Your task to perform on an android device: Add "jbl flip 4" to the cart on newegg, then select checkout. Image 0: 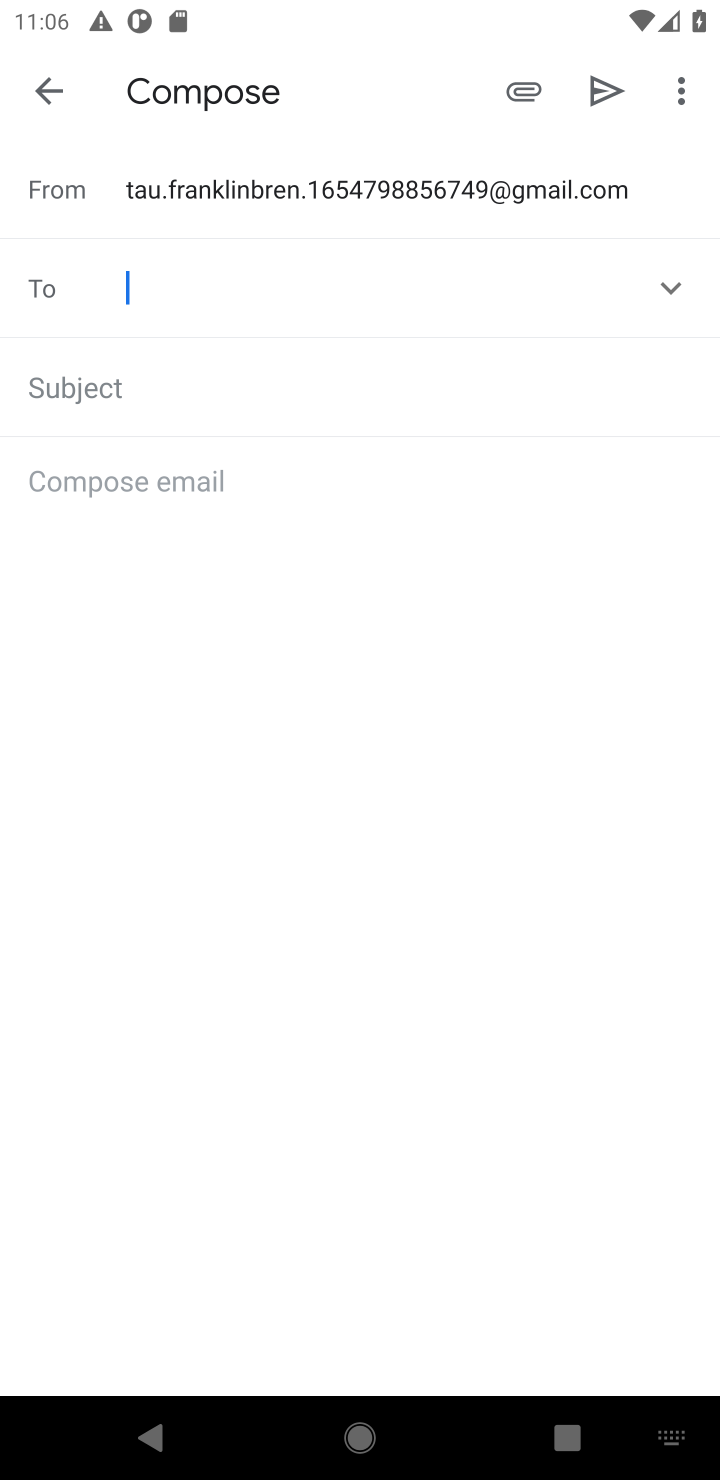
Step 0: press home button
Your task to perform on an android device: Add "jbl flip 4" to the cart on newegg, then select checkout. Image 1: 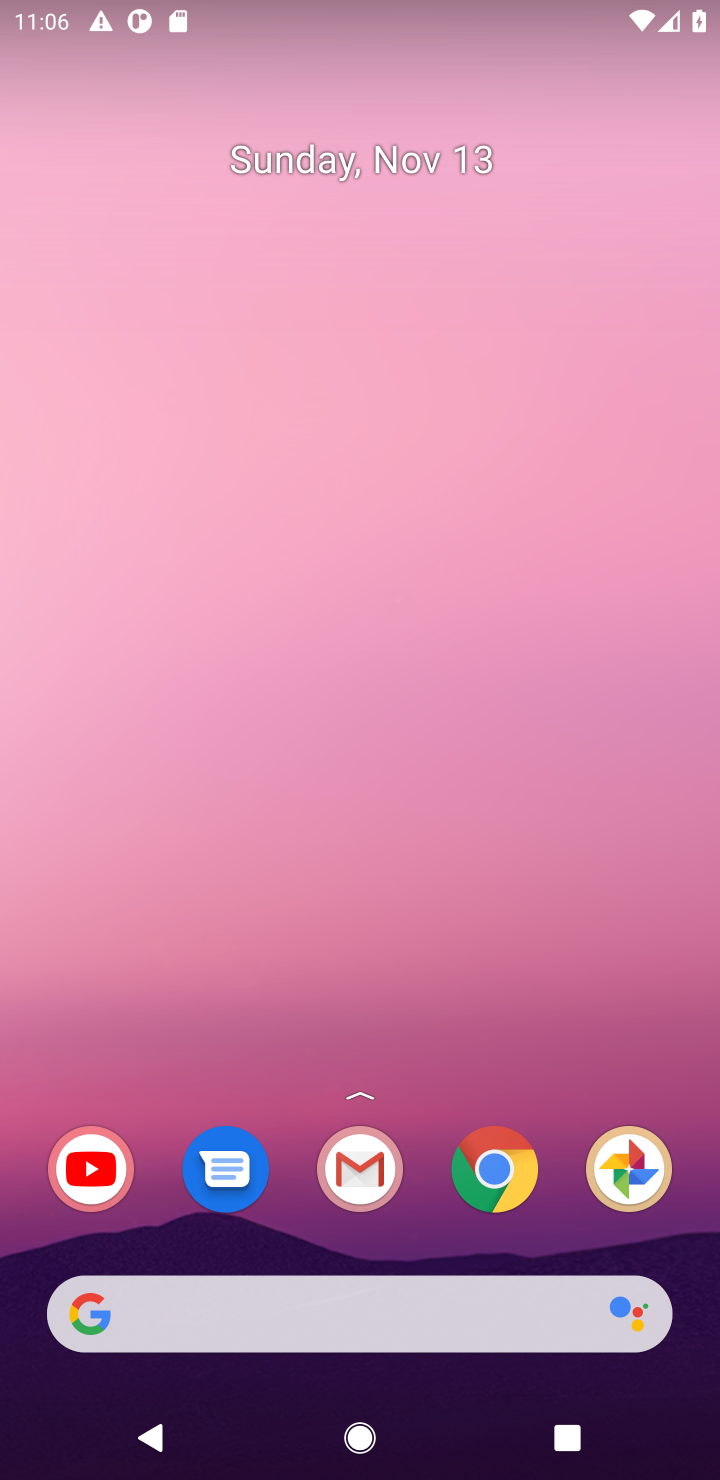
Step 1: drag from (411, 1258) to (280, 42)
Your task to perform on an android device: Add "jbl flip 4" to the cart on newegg, then select checkout. Image 2: 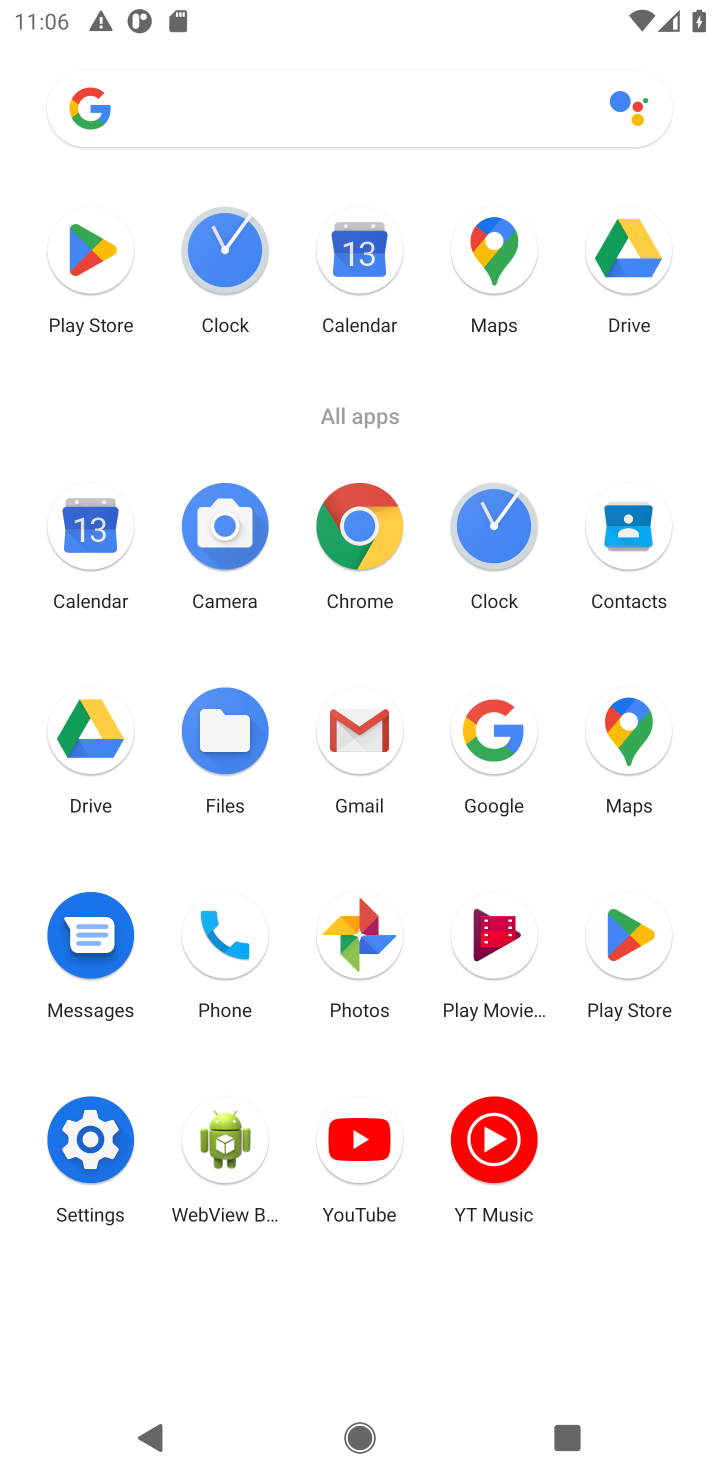
Step 2: click (361, 507)
Your task to perform on an android device: Add "jbl flip 4" to the cart on newegg, then select checkout. Image 3: 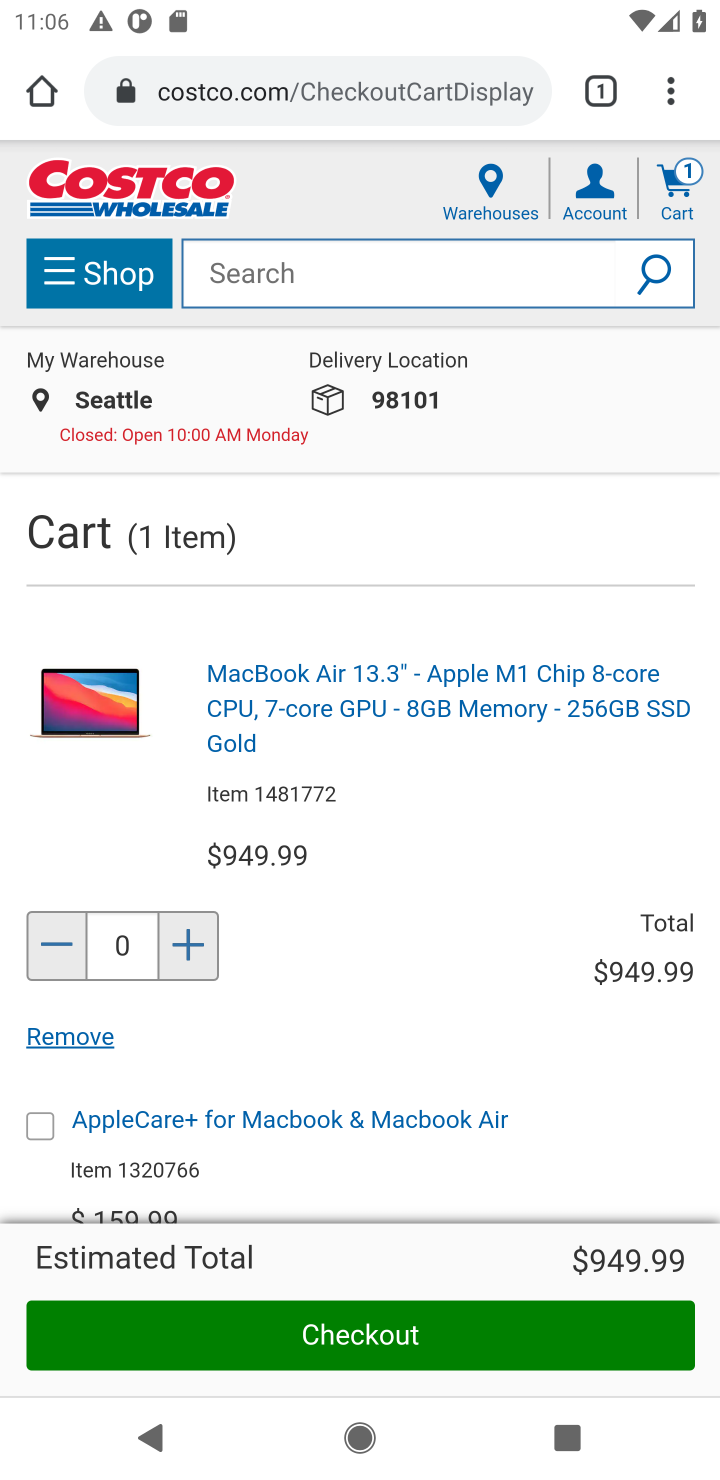
Step 3: click (356, 92)
Your task to perform on an android device: Add "jbl flip 4" to the cart on newegg, then select checkout. Image 4: 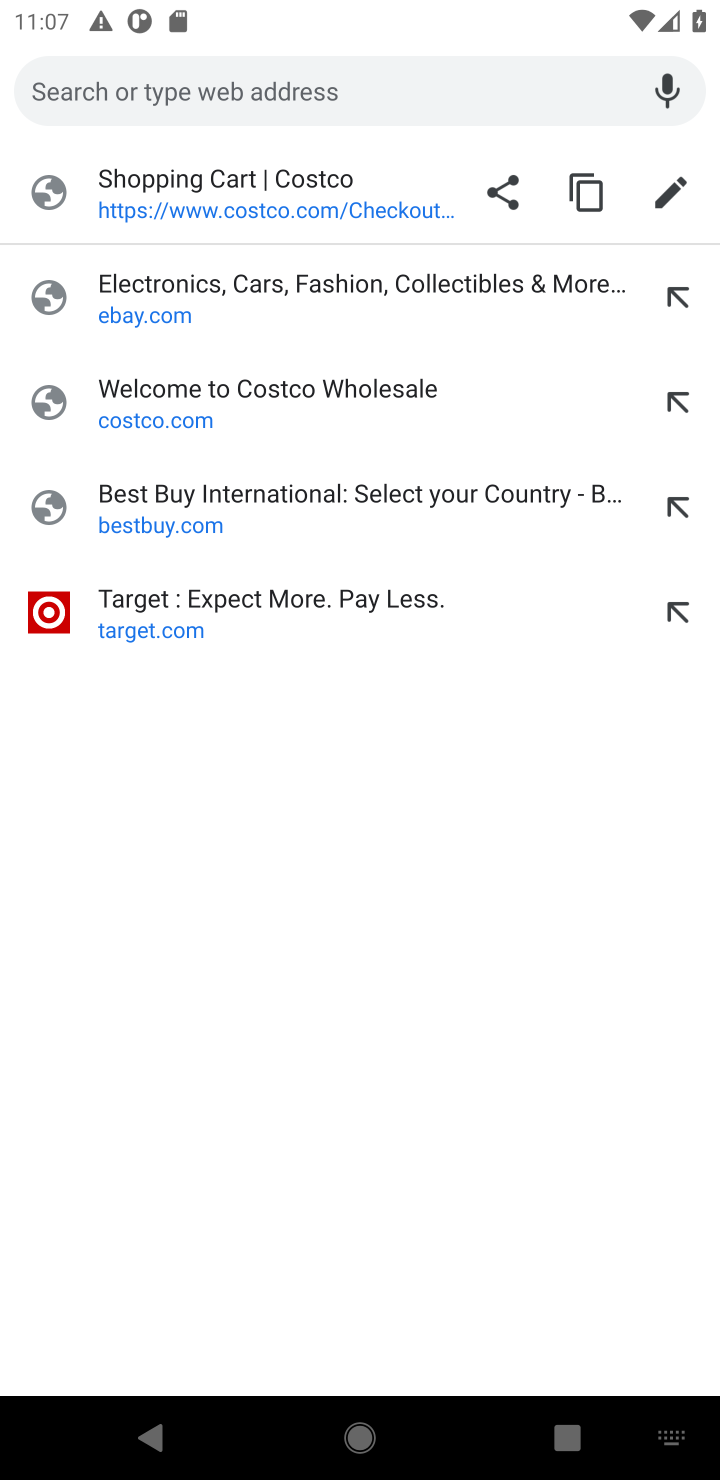
Step 4: type "newegg.com"
Your task to perform on an android device: Add "jbl flip 4" to the cart on newegg, then select checkout. Image 5: 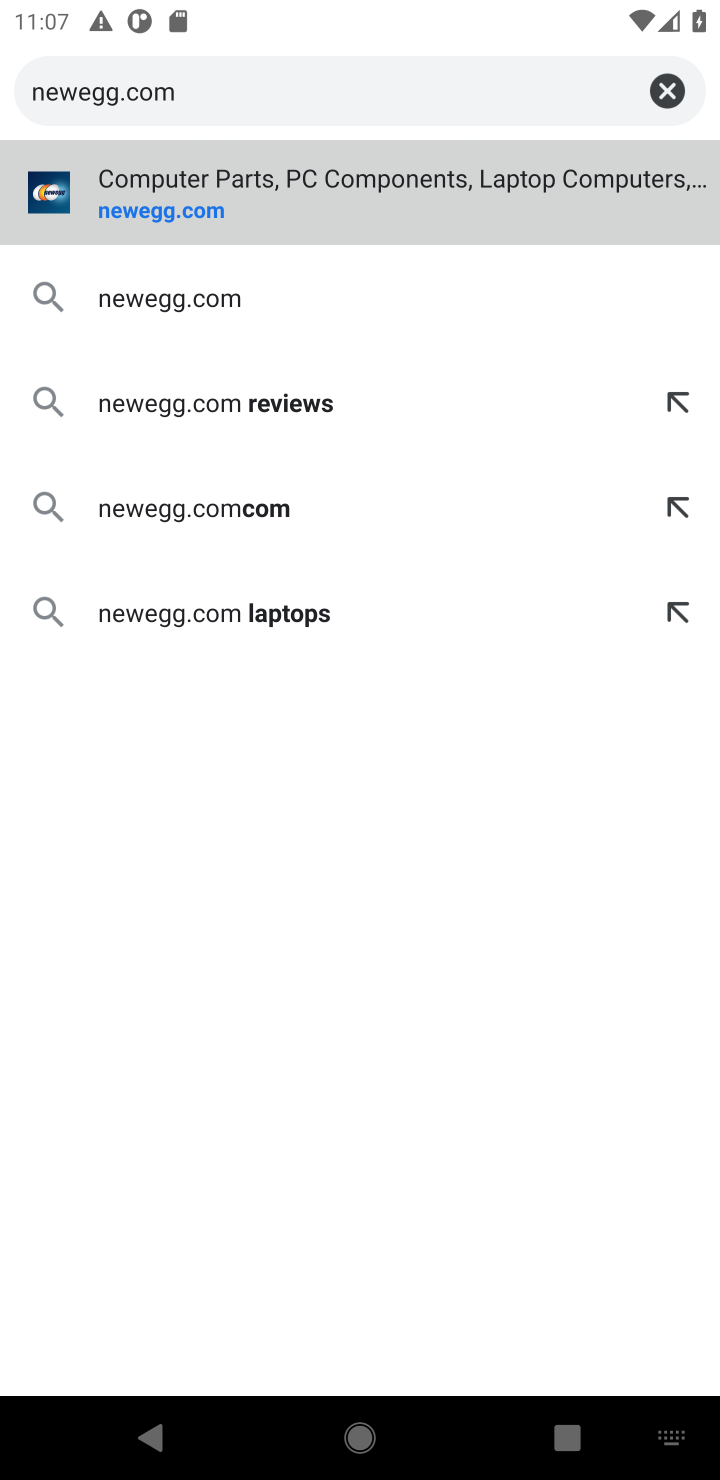
Step 5: press enter
Your task to perform on an android device: Add "jbl flip 4" to the cart on newegg, then select checkout. Image 6: 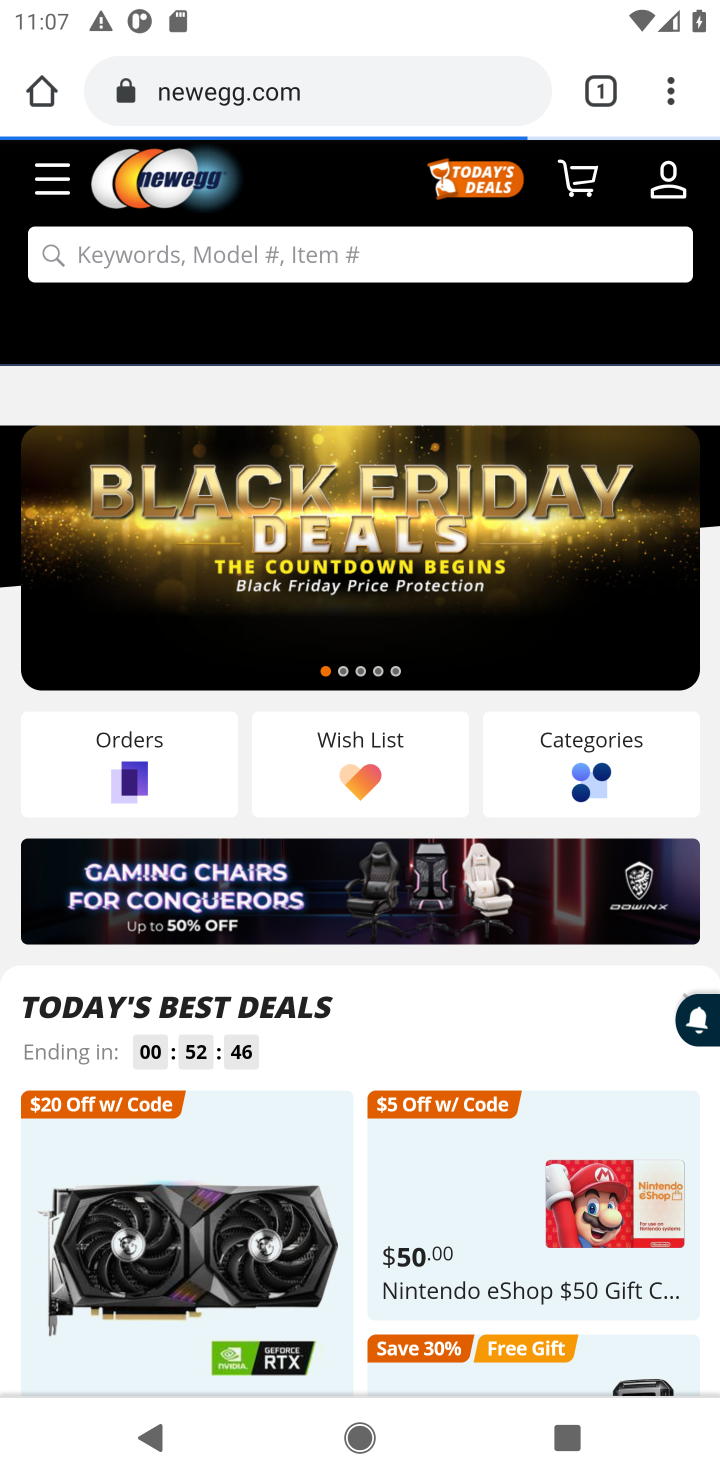
Step 6: click (419, 251)
Your task to perform on an android device: Add "jbl flip 4" to the cart on newegg, then select checkout. Image 7: 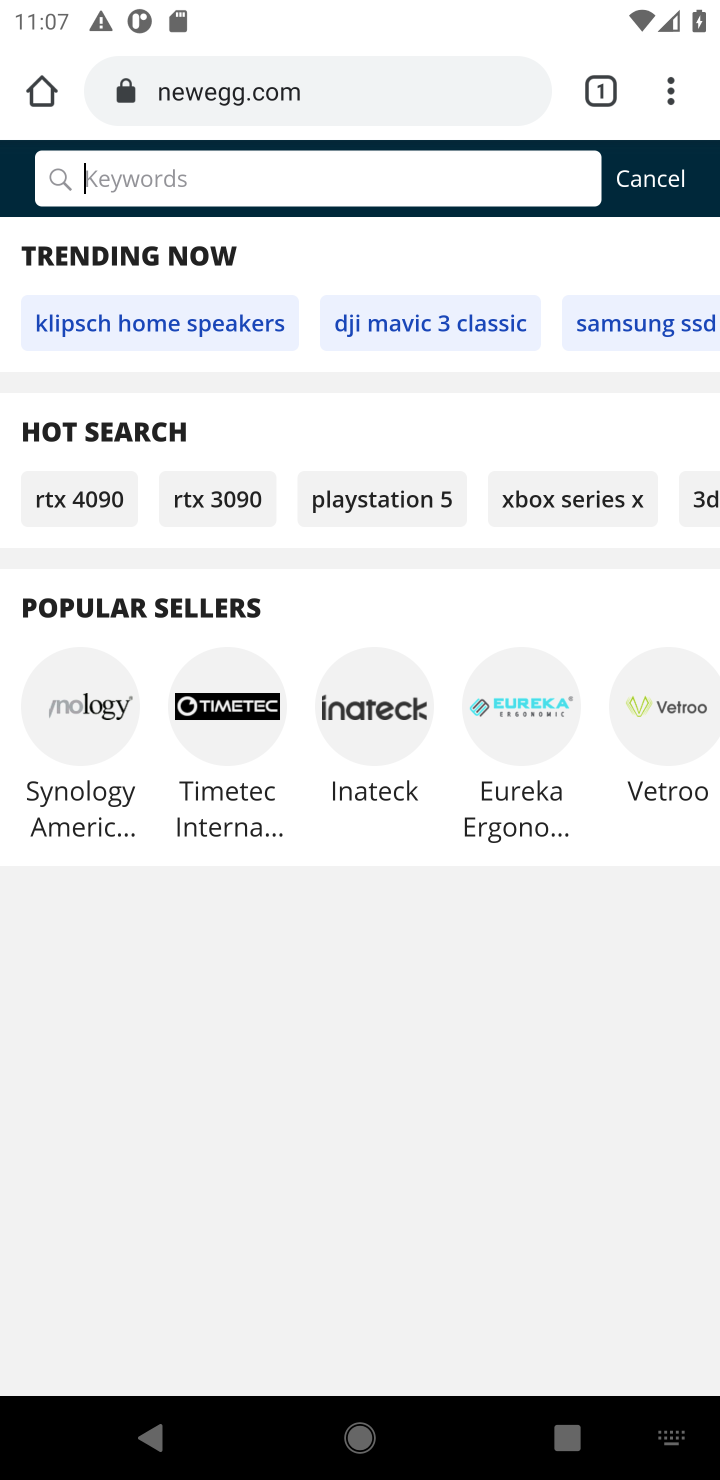
Step 7: type "jbl flip 4"
Your task to perform on an android device: Add "jbl flip 4" to the cart on newegg, then select checkout. Image 8: 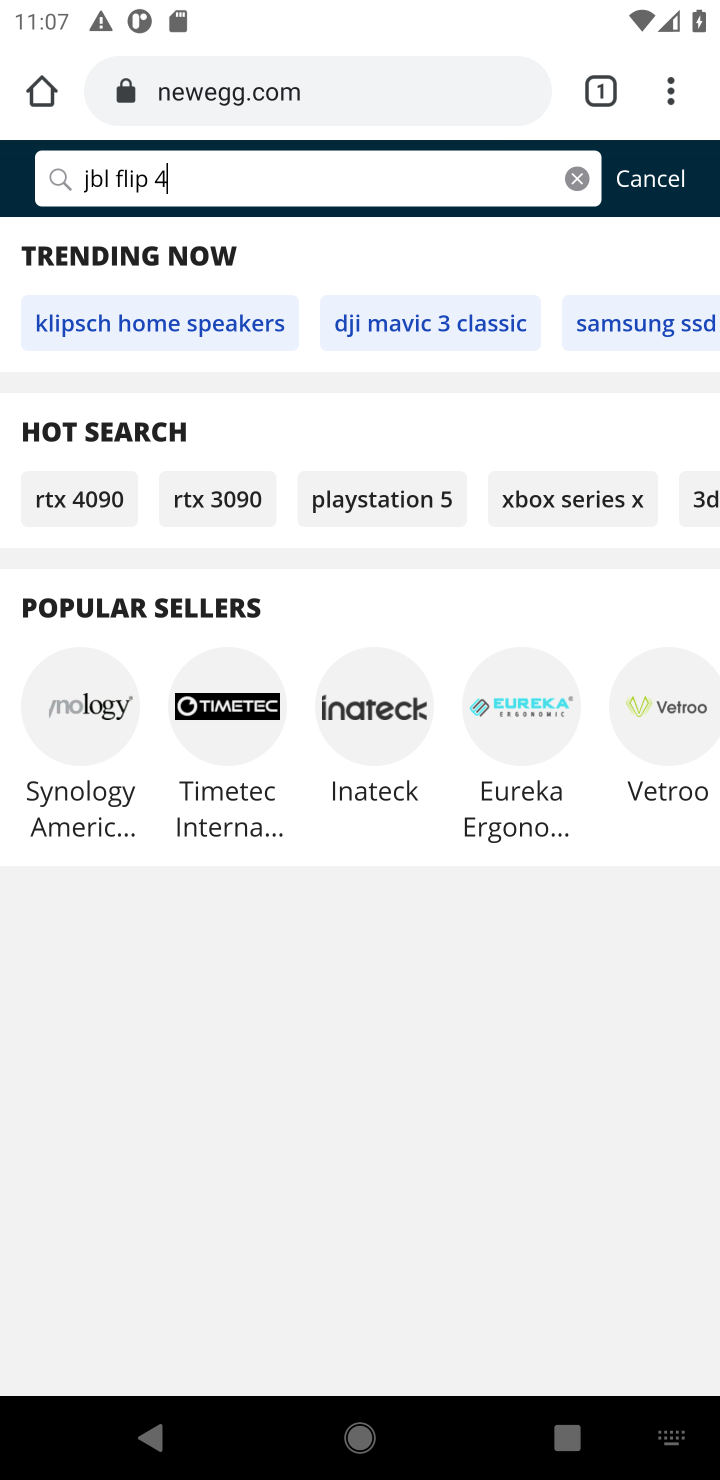
Step 8: press enter
Your task to perform on an android device: Add "jbl flip 4" to the cart on newegg, then select checkout. Image 9: 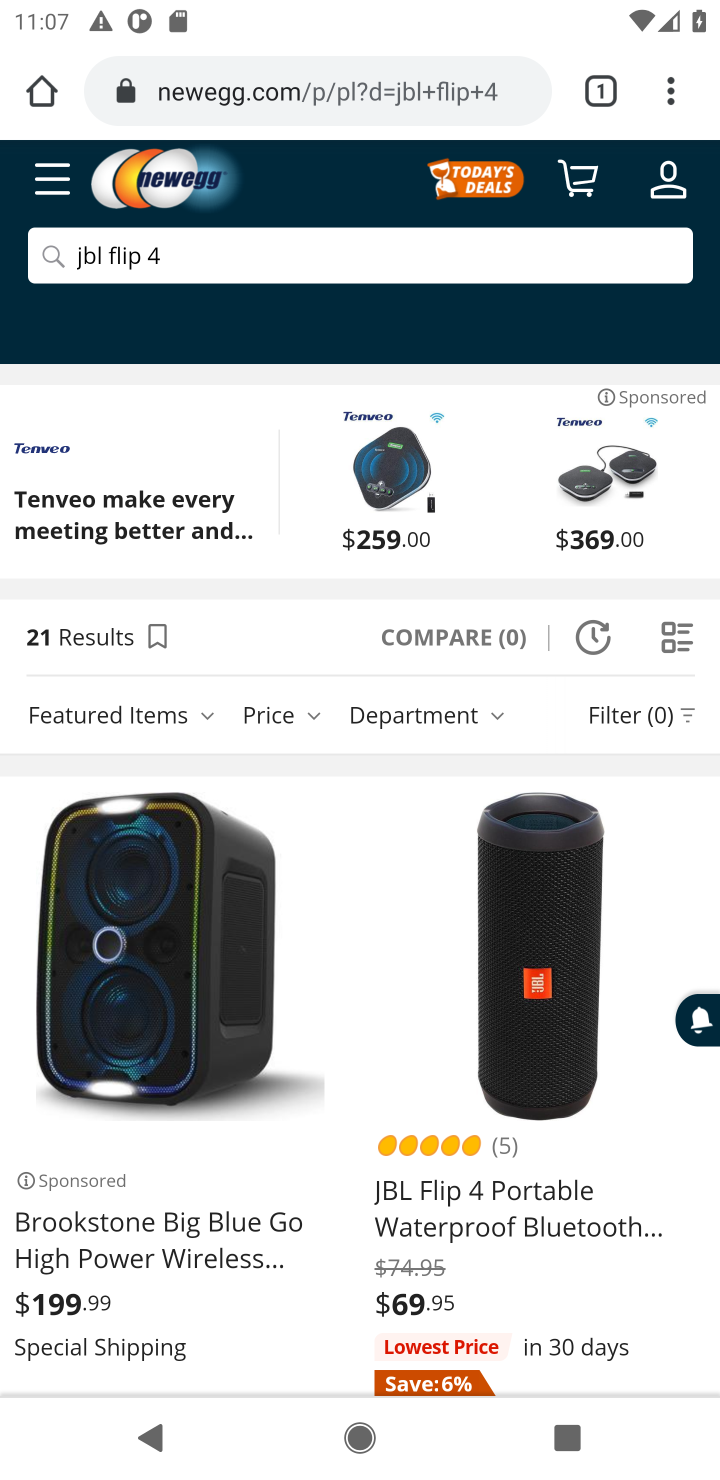
Step 9: drag from (457, 1161) to (386, 762)
Your task to perform on an android device: Add "jbl flip 4" to the cart on newegg, then select checkout. Image 10: 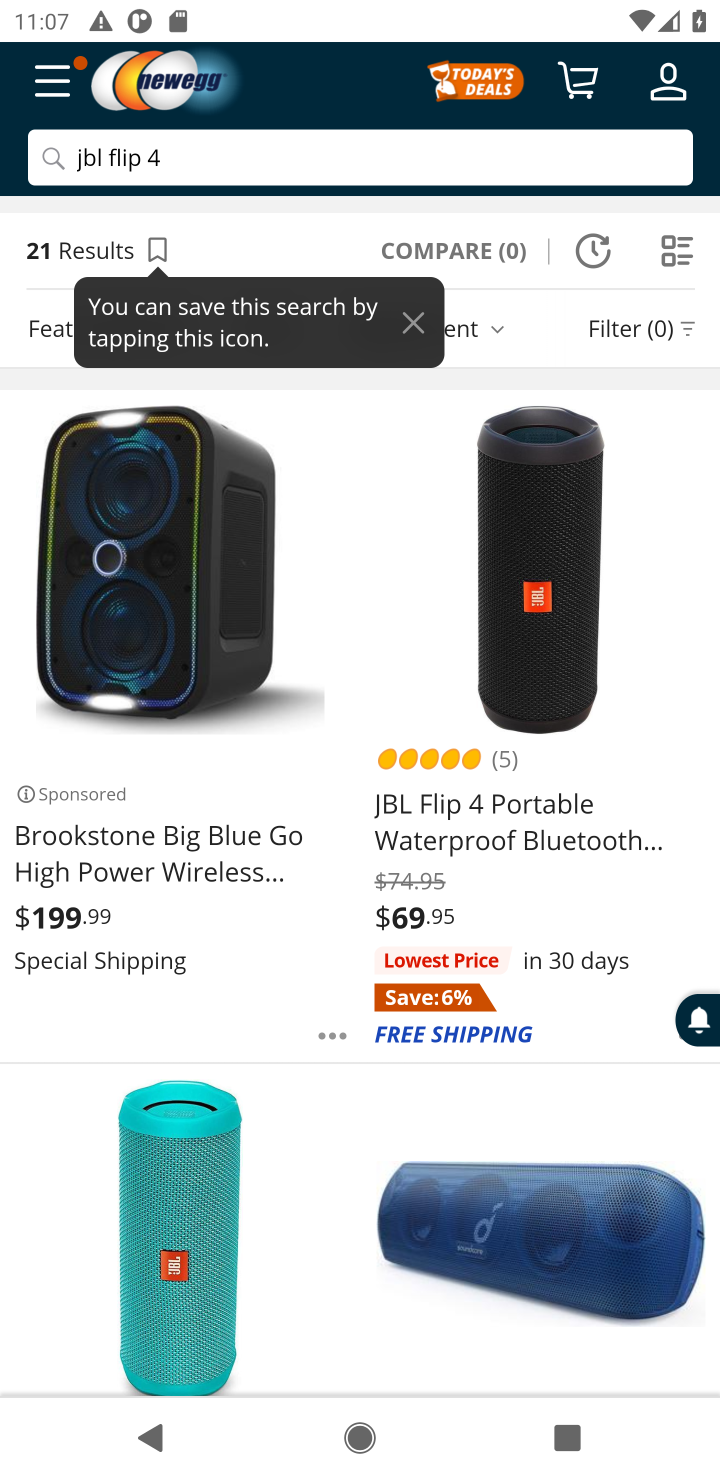
Step 10: drag from (428, 1155) to (382, 796)
Your task to perform on an android device: Add "jbl flip 4" to the cart on newegg, then select checkout. Image 11: 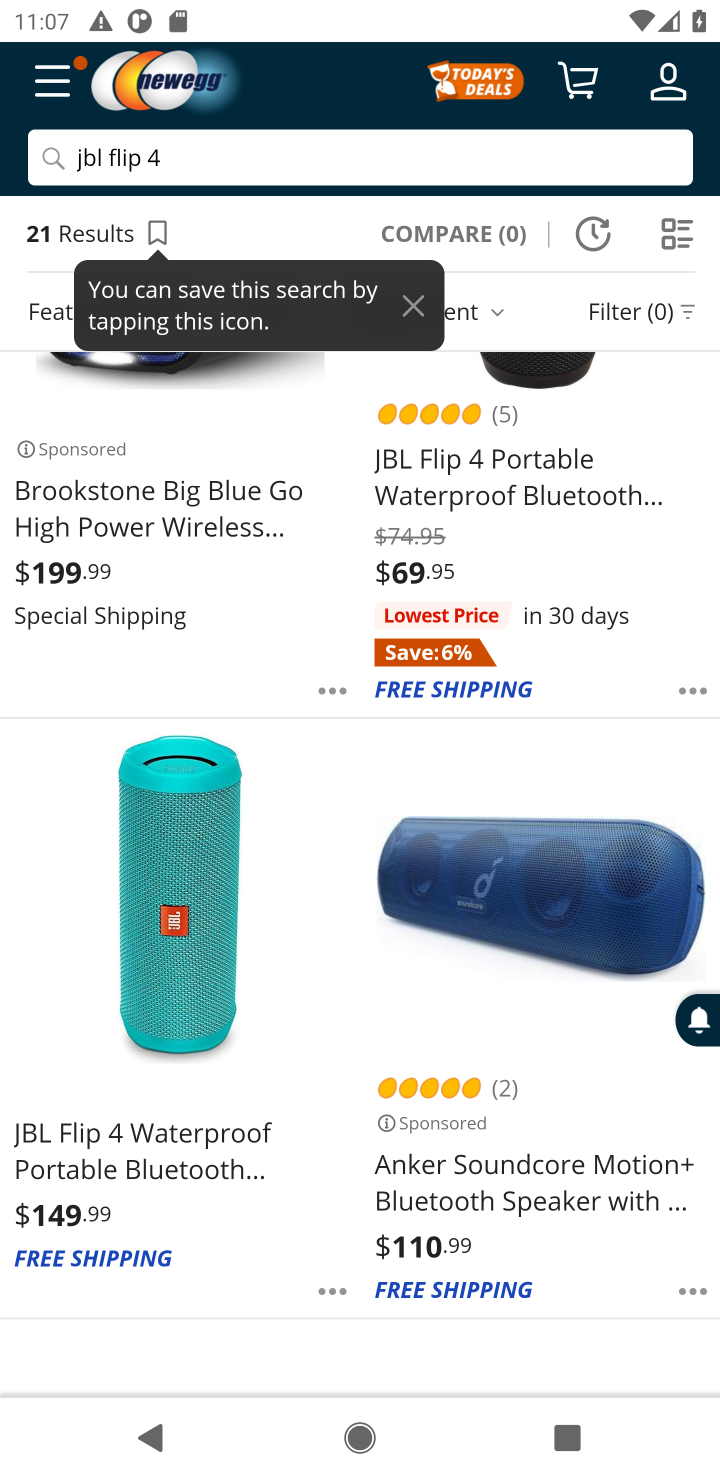
Step 11: click (536, 464)
Your task to perform on an android device: Add "jbl flip 4" to the cart on newegg, then select checkout. Image 12: 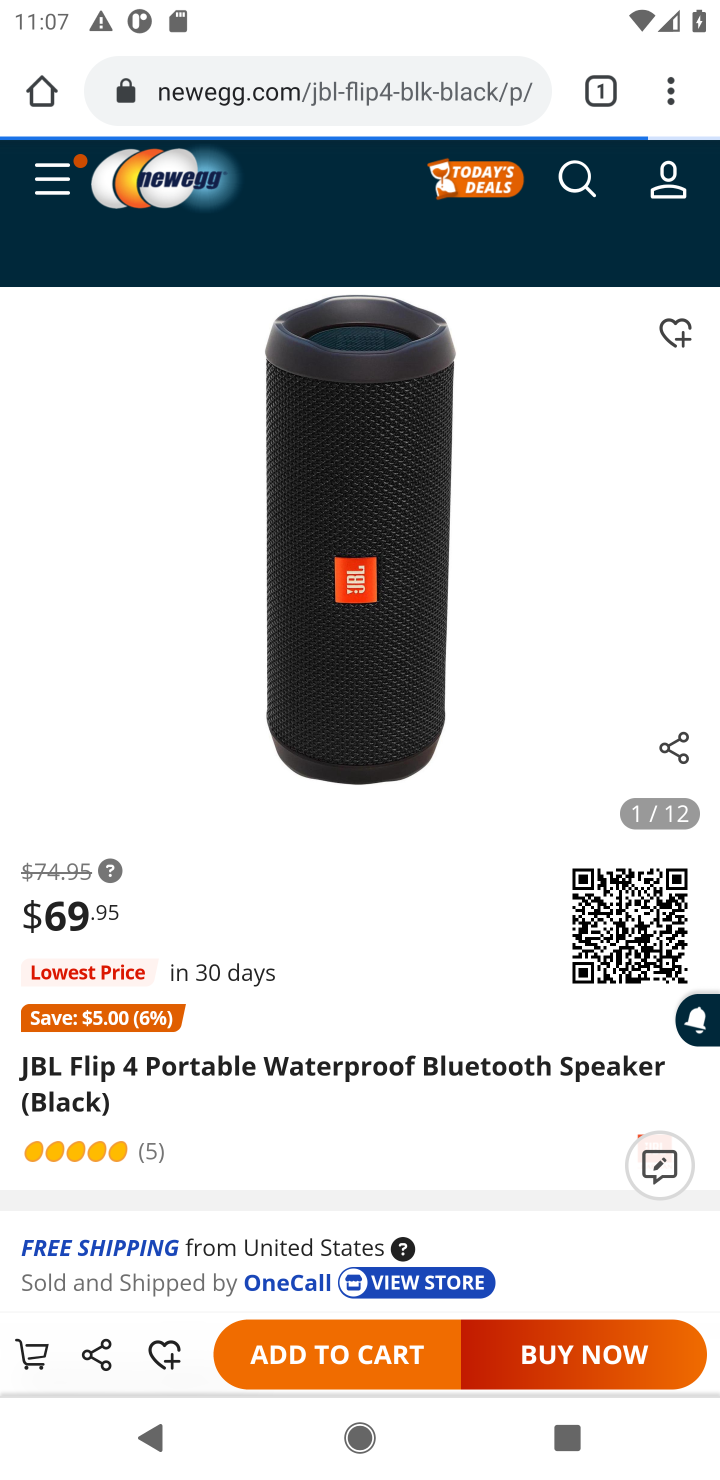
Step 12: click (306, 1390)
Your task to perform on an android device: Add "jbl flip 4" to the cart on newegg, then select checkout. Image 13: 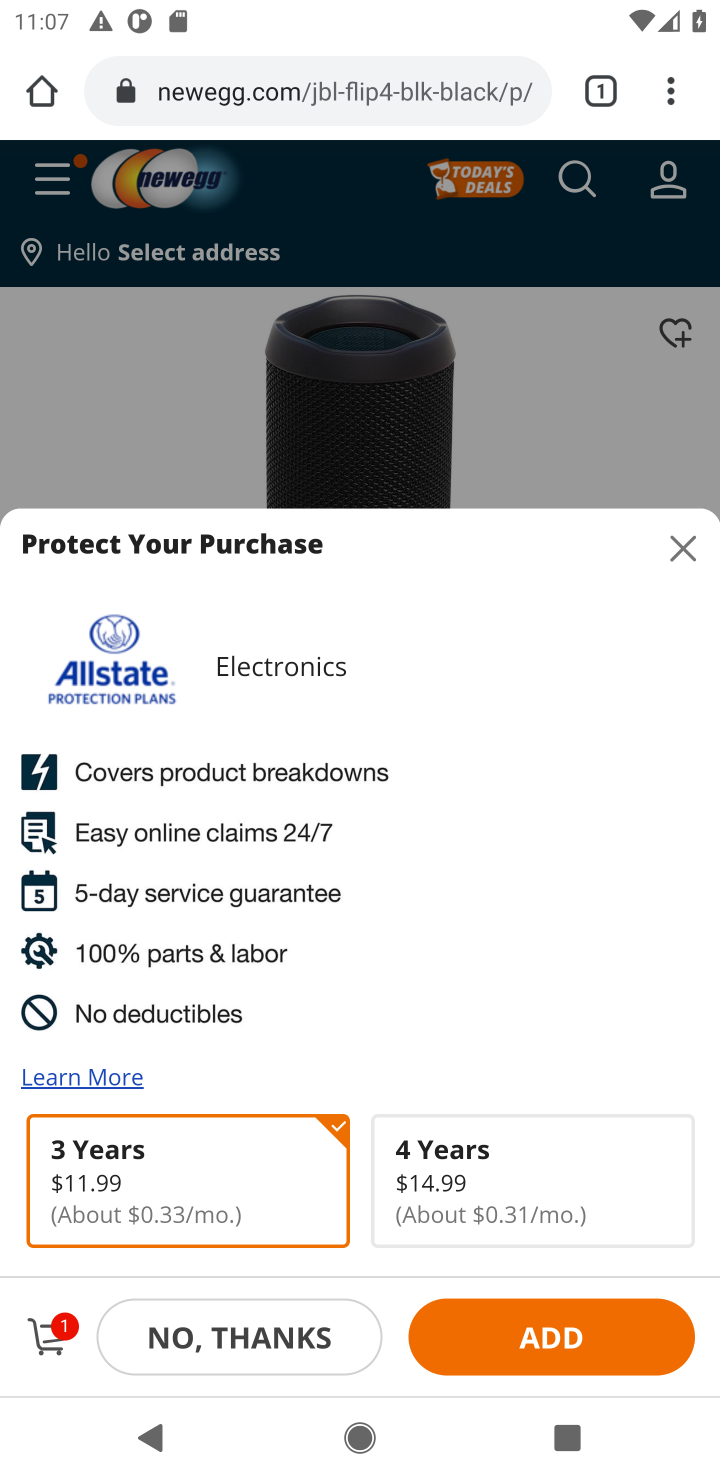
Step 13: click (47, 1338)
Your task to perform on an android device: Add "jbl flip 4" to the cart on newegg, then select checkout. Image 14: 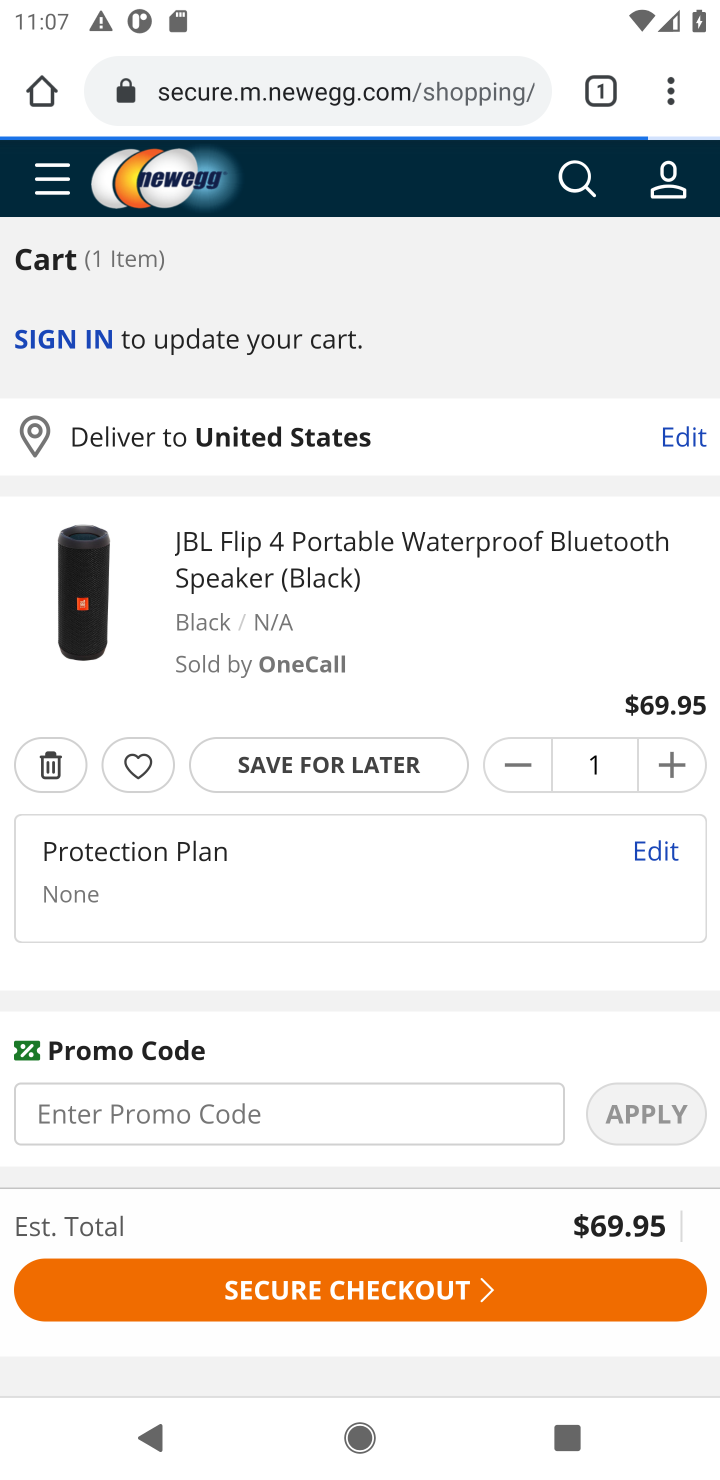
Step 14: click (325, 1278)
Your task to perform on an android device: Add "jbl flip 4" to the cart on newegg, then select checkout. Image 15: 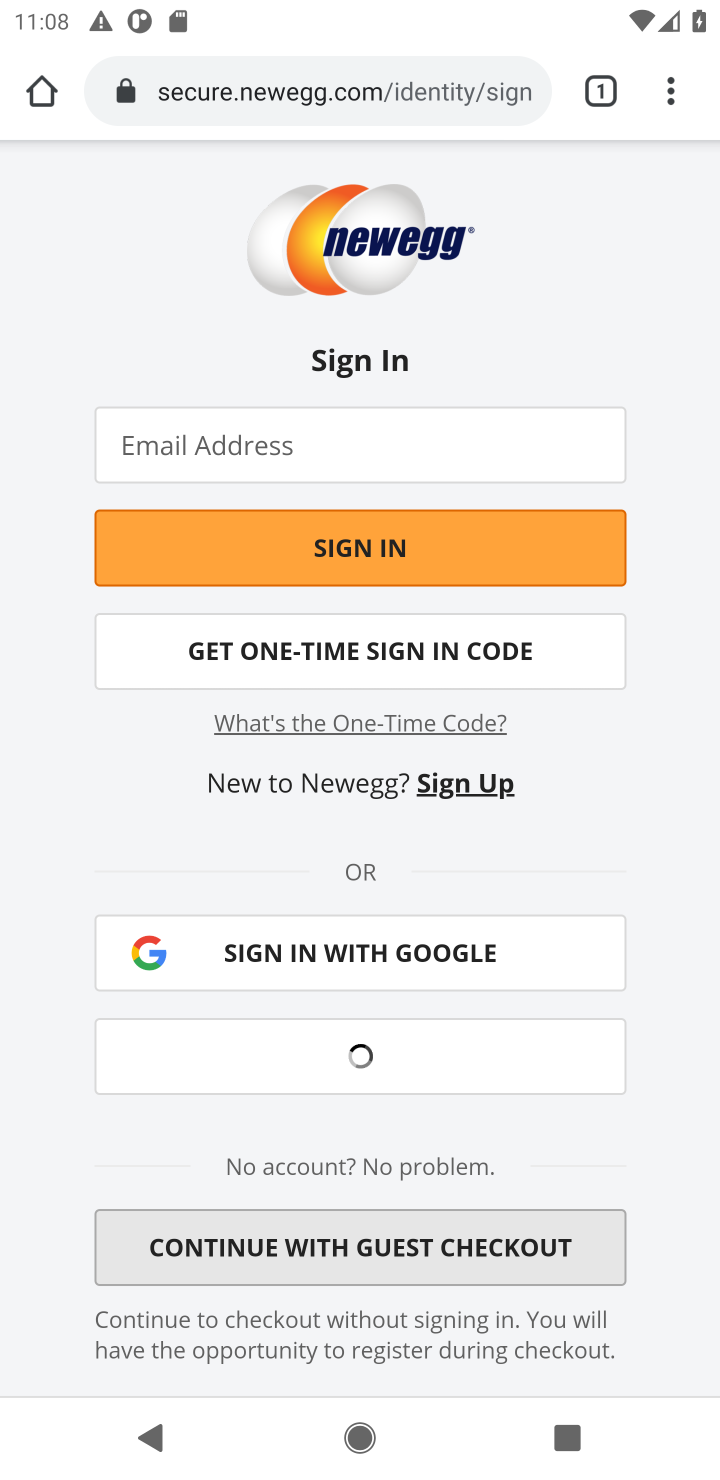
Step 15: task complete